Your task to perform on an android device: set the stopwatch Image 0: 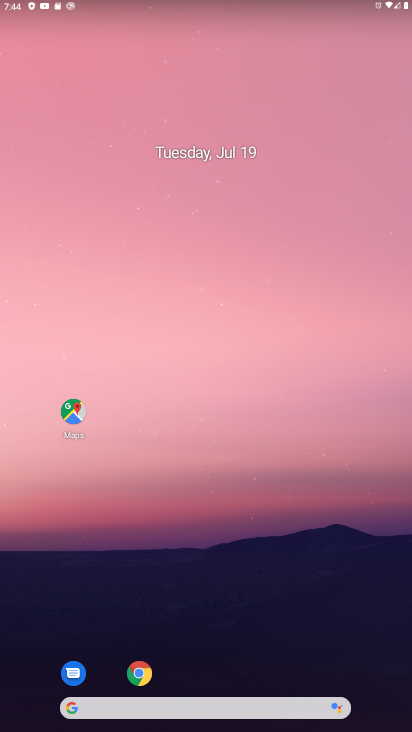
Step 0: drag from (304, 601) to (246, 164)
Your task to perform on an android device: set the stopwatch Image 1: 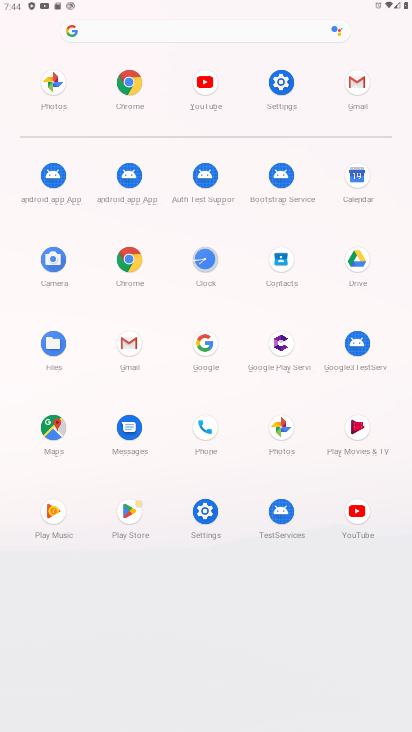
Step 1: click (210, 255)
Your task to perform on an android device: set the stopwatch Image 2: 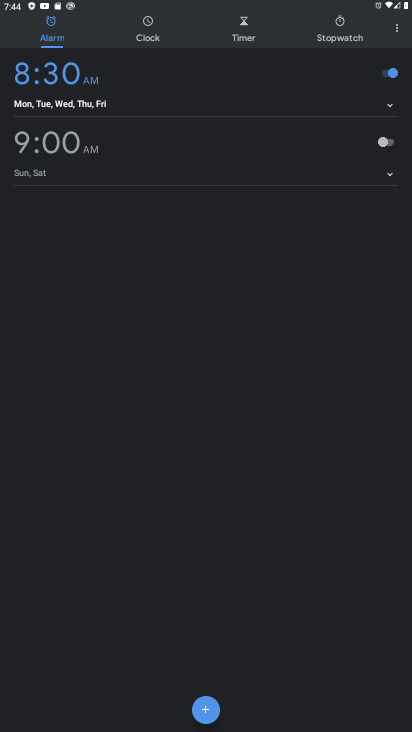
Step 2: click (349, 48)
Your task to perform on an android device: set the stopwatch Image 3: 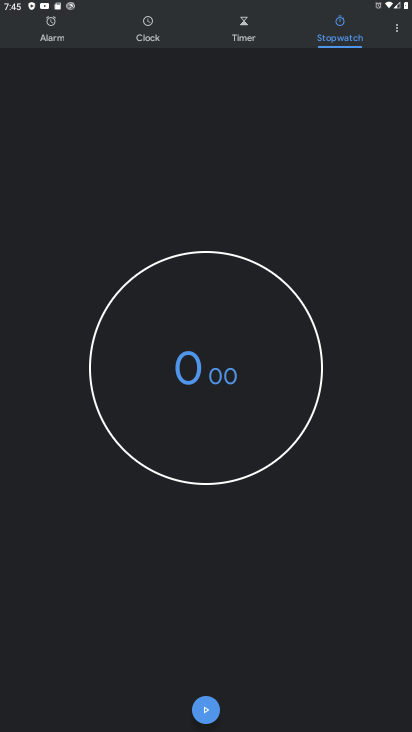
Step 3: click (205, 723)
Your task to perform on an android device: set the stopwatch Image 4: 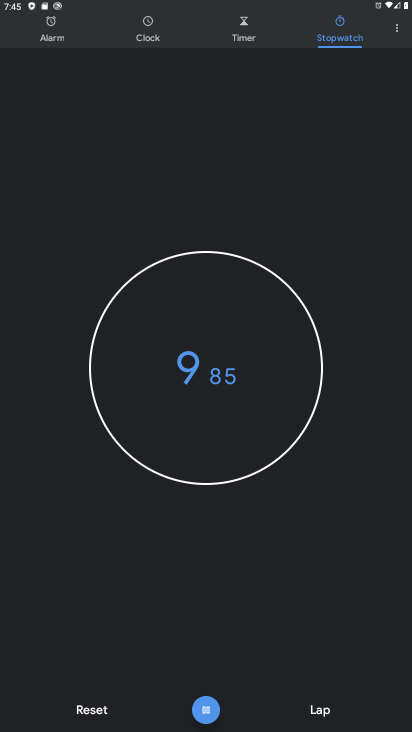
Step 4: task complete